Your task to perform on an android device: Play the last video I watched on Youtube Image 0: 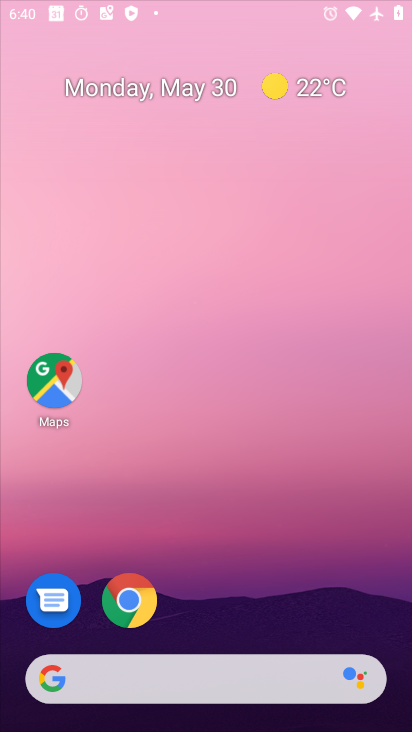
Step 0: press home button
Your task to perform on an android device: Play the last video I watched on Youtube Image 1: 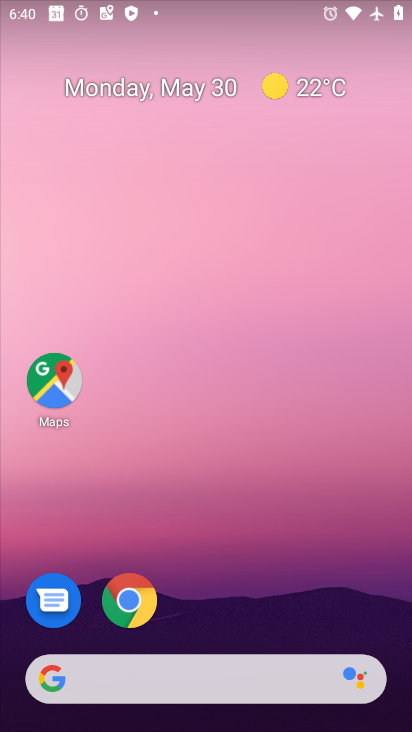
Step 1: drag from (309, 626) to (261, 12)
Your task to perform on an android device: Play the last video I watched on Youtube Image 2: 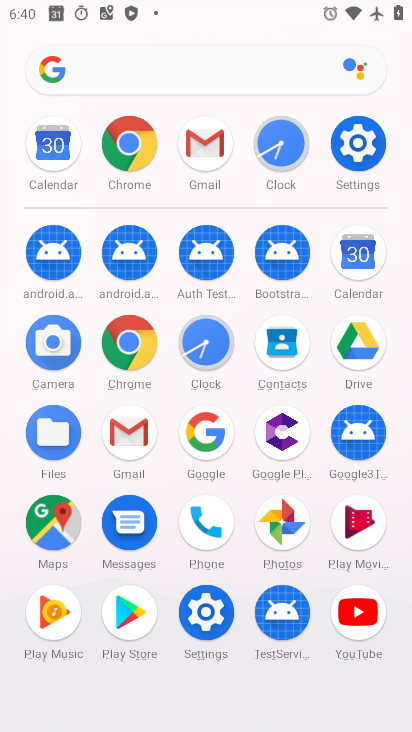
Step 2: click (368, 608)
Your task to perform on an android device: Play the last video I watched on Youtube Image 3: 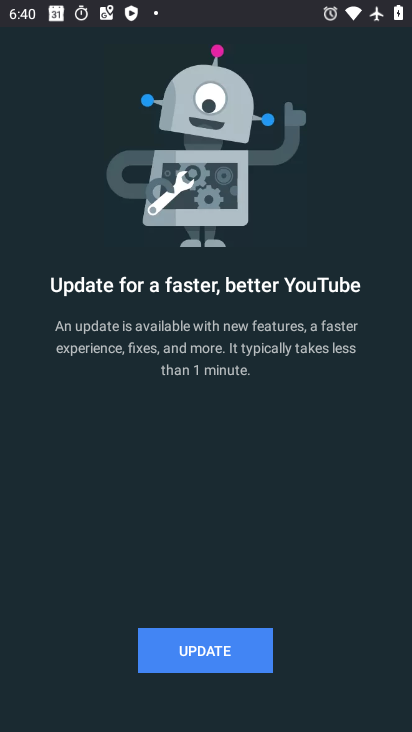
Step 3: click (222, 657)
Your task to perform on an android device: Play the last video I watched on Youtube Image 4: 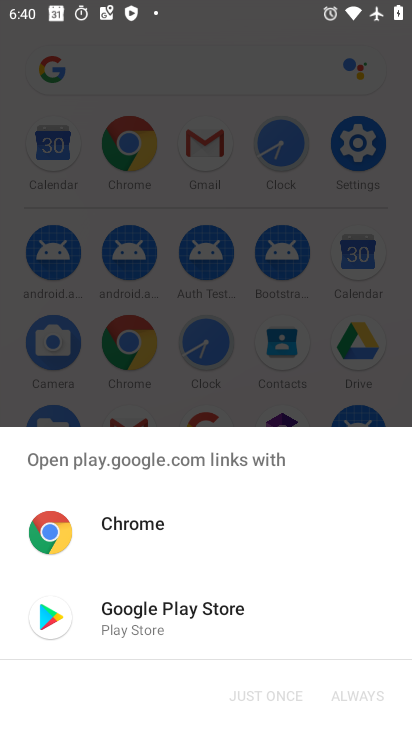
Step 4: click (145, 613)
Your task to perform on an android device: Play the last video I watched on Youtube Image 5: 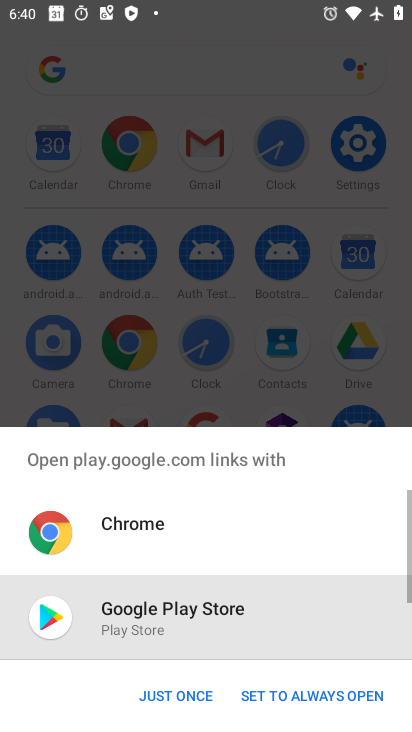
Step 5: click (185, 697)
Your task to perform on an android device: Play the last video I watched on Youtube Image 6: 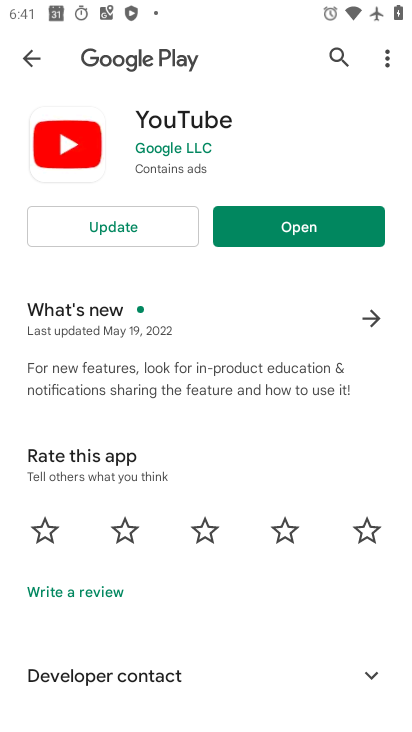
Step 6: click (142, 230)
Your task to perform on an android device: Play the last video I watched on Youtube Image 7: 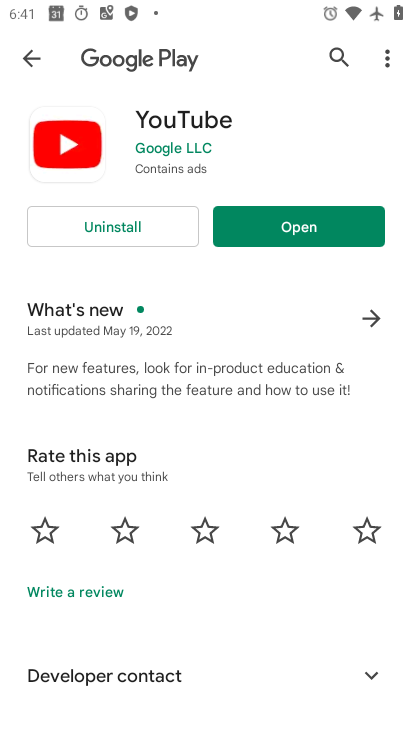
Step 7: click (353, 225)
Your task to perform on an android device: Play the last video I watched on Youtube Image 8: 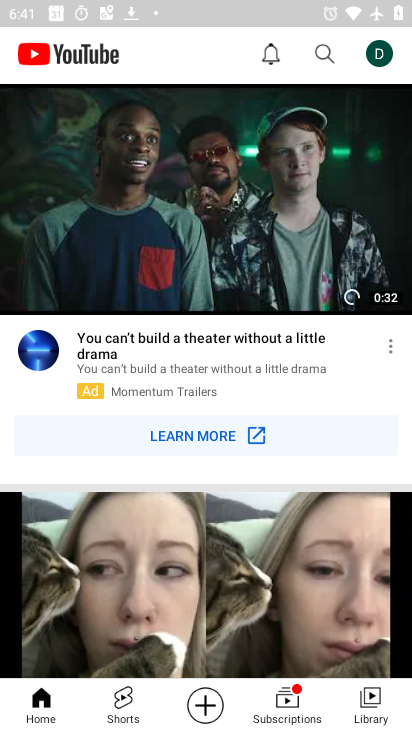
Step 8: click (357, 706)
Your task to perform on an android device: Play the last video I watched on Youtube Image 9: 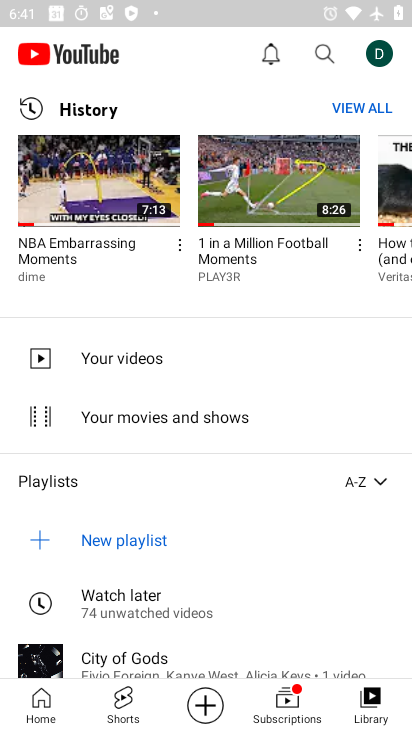
Step 9: click (111, 179)
Your task to perform on an android device: Play the last video I watched on Youtube Image 10: 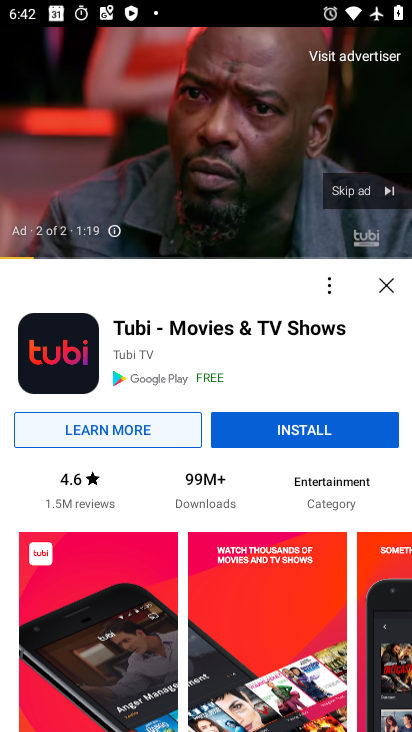
Step 10: click (358, 191)
Your task to perform on an android device: Play the last video I watched on Youtube Image 11: 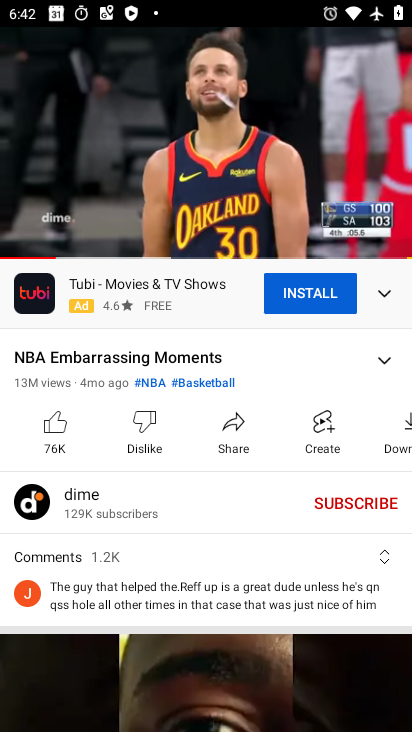
Step 11: task complete